Your task to perform on an android device: add a label to a message in the gmail app Image 0: 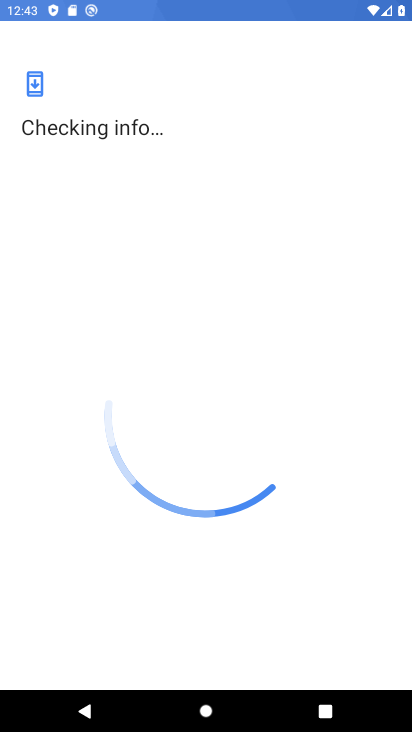
Step 0: press home button
Your task to perform on an android device: add a label to a message in the gmail app Image 1: 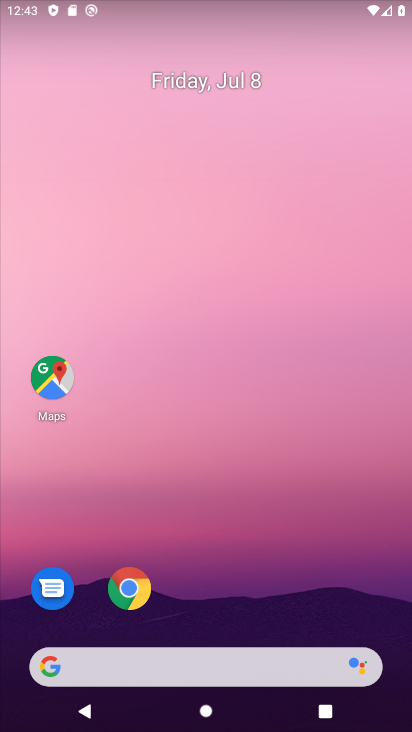
Step 1: drag from (229, 423) to (396, 5)
Your task to perform on an android device: add a label to a message in the gmail app Image 2: 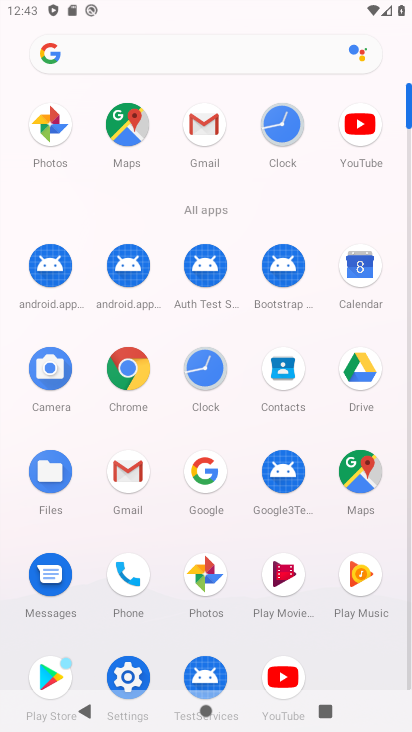
Step 2: click (129, 483)
Your task to perform on an android device: add a label to a message in the gmail app Image 3: 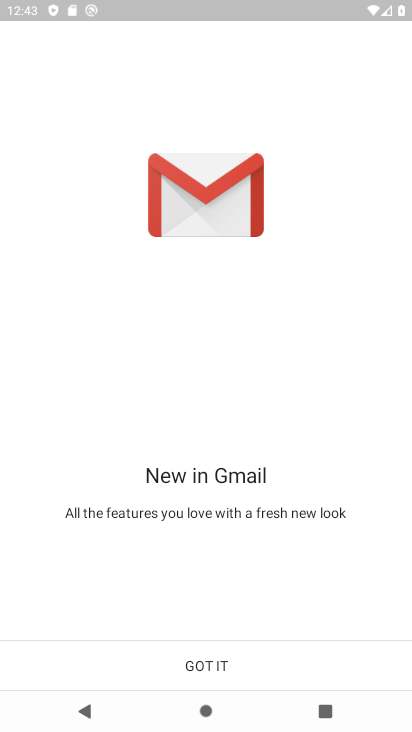
Step 3: click (201, 669)
Your task to perform on an android device: add a label to a message in the gmail app Image 4: 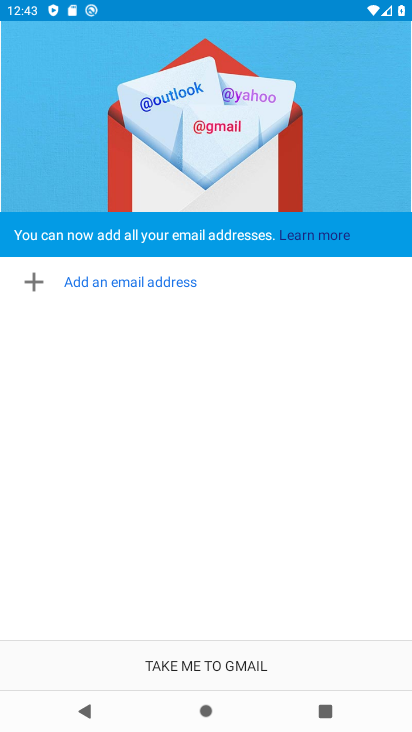
Step 4: click (215, 666)
Your task to perform on an android device: add a label to a message in the gmail app Image 5: 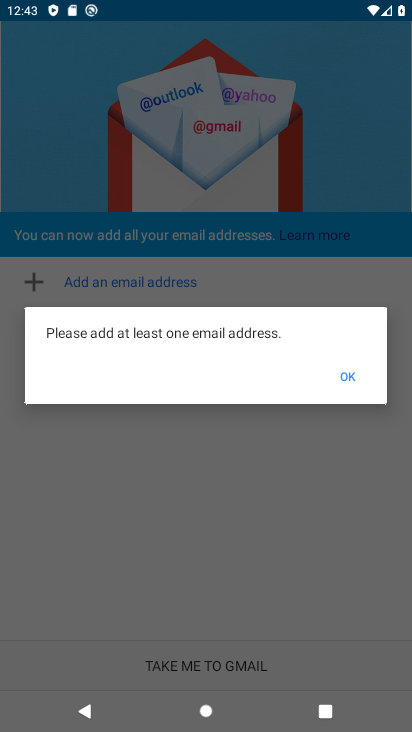
Step 5: click (352, 365)
Your task to perform on an android device: add a label to a message in the gmail app Image 6: 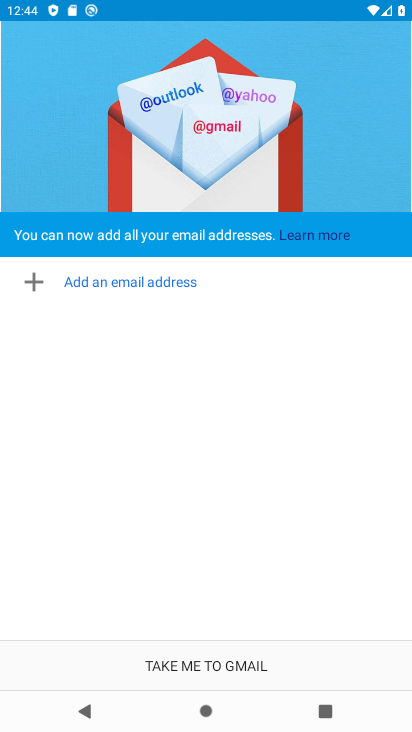
Step 6: task complete